Your task to perform on an android device: What's the weather going to be tomorrow? Image 0: 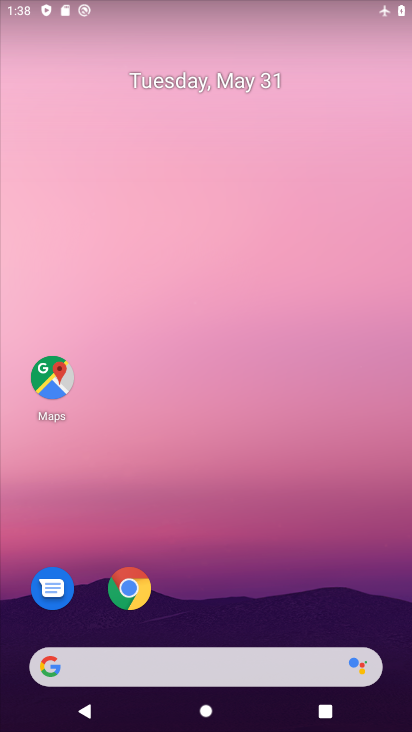
Step 0: drag from (246, 624) to (137, 80)
Your task to perform on an android device: What's the weather going to be tomorrow? Image 1: 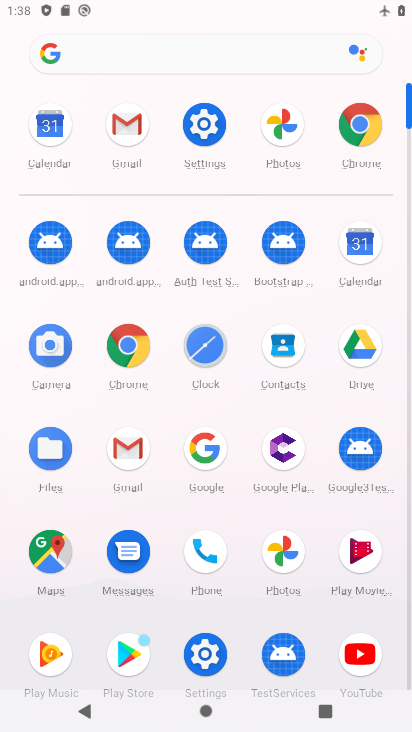
Step 1: click (353, 128)
Your task to perform on an android device: What's the weather going to be tomorrow? Image 2: 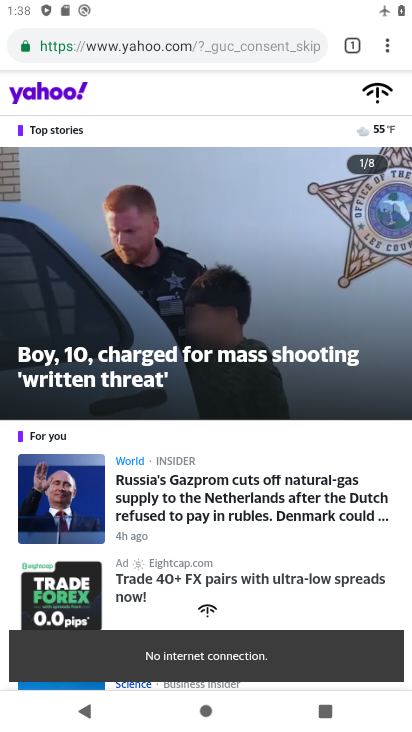
Step 2: click (210, 53)
Your task to perform on an android device: What's the weather going to be tomorrow? Image 3: 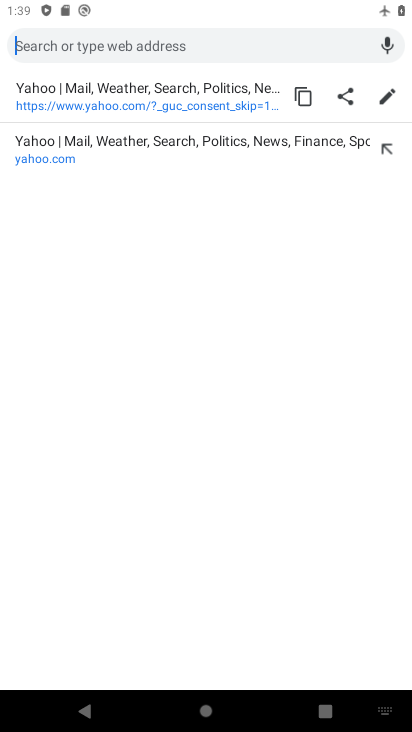
Step 3: type "What's the weather going to be tomorrow?"
Your task to perform on an android device: What's the weather going to be tomorrow? Image 4: 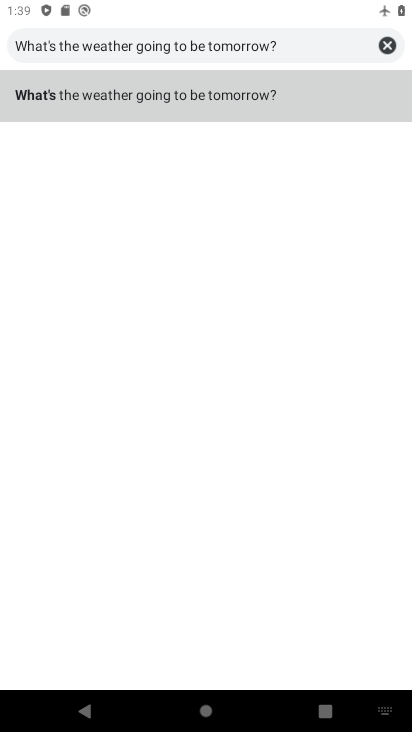
Step 4: click (258, 99)
Your task to perform on an android device: What's the weather going to be tomorrow? Image 5: 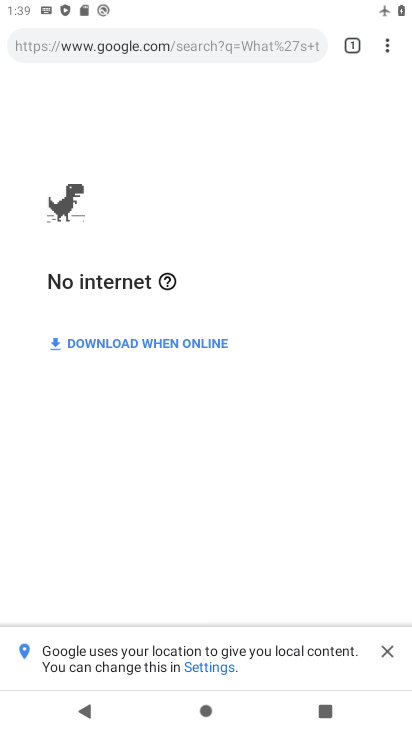
Step 5: task complete